Your task to perform on an android device: see sites visited before in the chrome app Image 0: 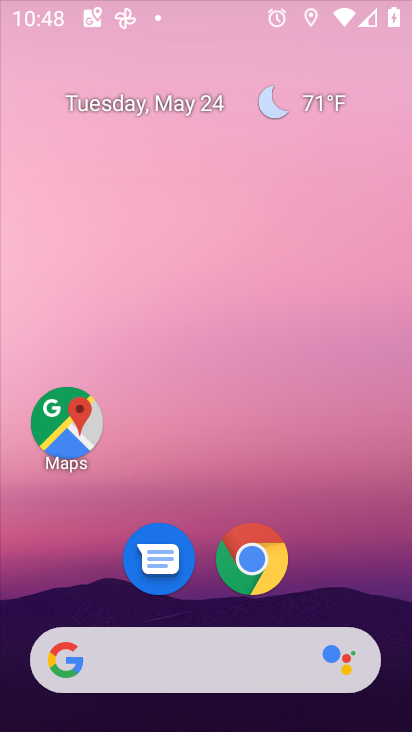
Step 0: drag from (396, 608) to (243, 31)
Your task to perform on an android device: see sites visited before in the chrome app Image 1: 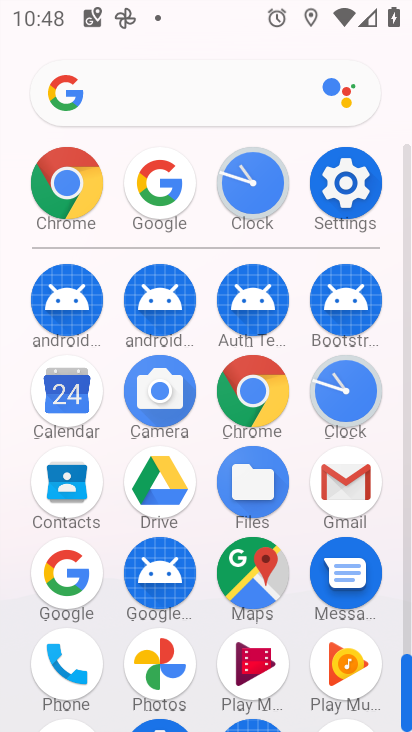
Step 1: click (76, 181)
Your task to perform on an android device: see sites visited before in the chrome app Image 2: 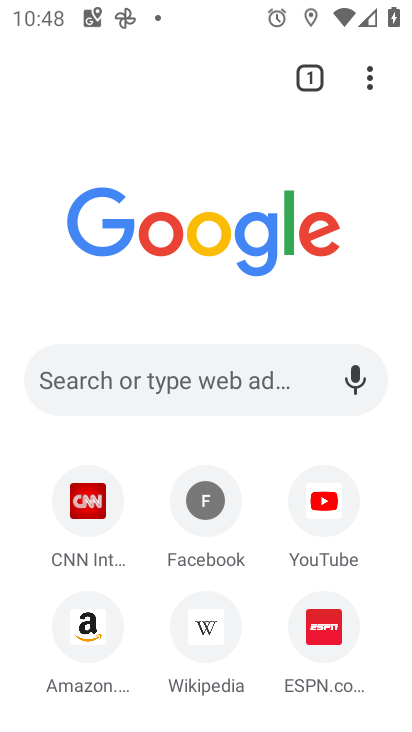
Step 2: click (369, 70)
Your task to perform on an android device: see sites visited before in the chrome app Image 3: 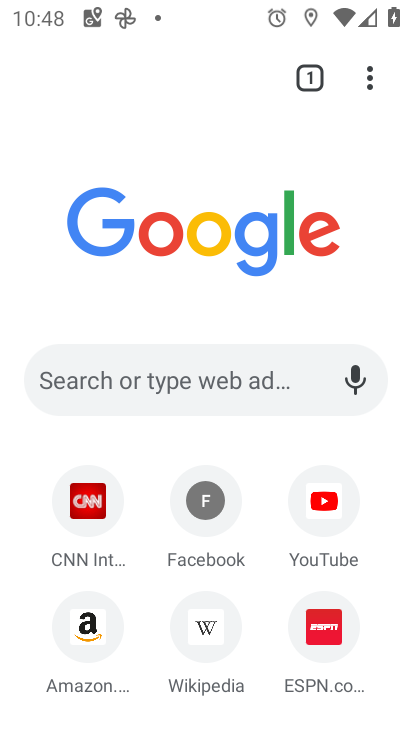
Step 3: click (369, 70)
Your task to perform on an android device: see sites visited before in the chrome app Image 4: 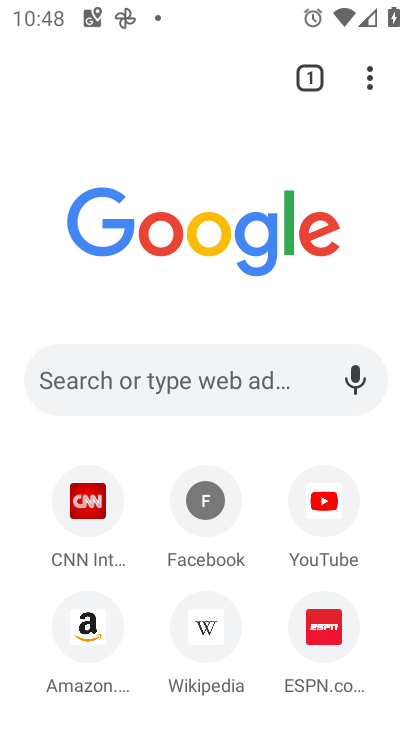
Step 4: click (375, 76)
Your task to perform on an android device: see sites visited before in the chrome app Image 5: 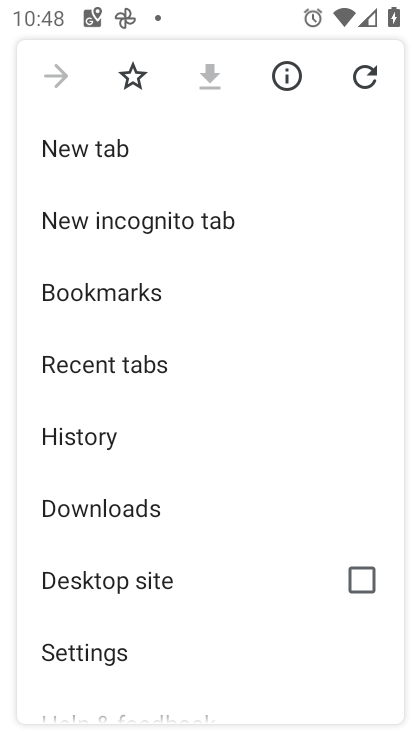
Step 5: click (97, 440)
Your task to perform on an android device: see sites visited before in the chrome app Image 6: 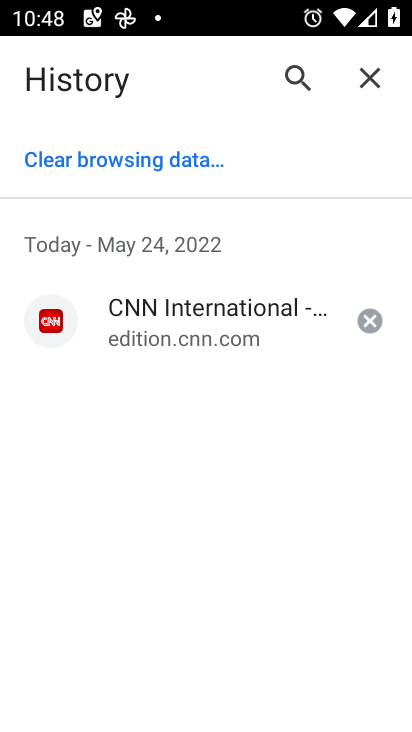
Step 6: click (160, 306)
Your task to perform on an android device: see sites visited before in the chrome app Image 7: 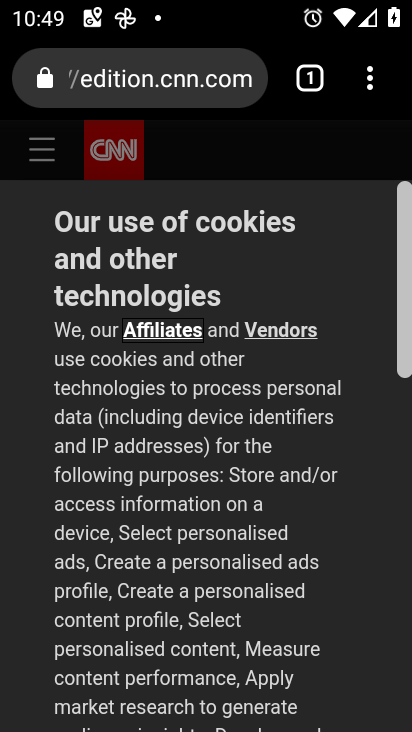
Step 7: task complete